Your task to perform on an android device: open app "Pinterest" (install if not already installed) Image 0: 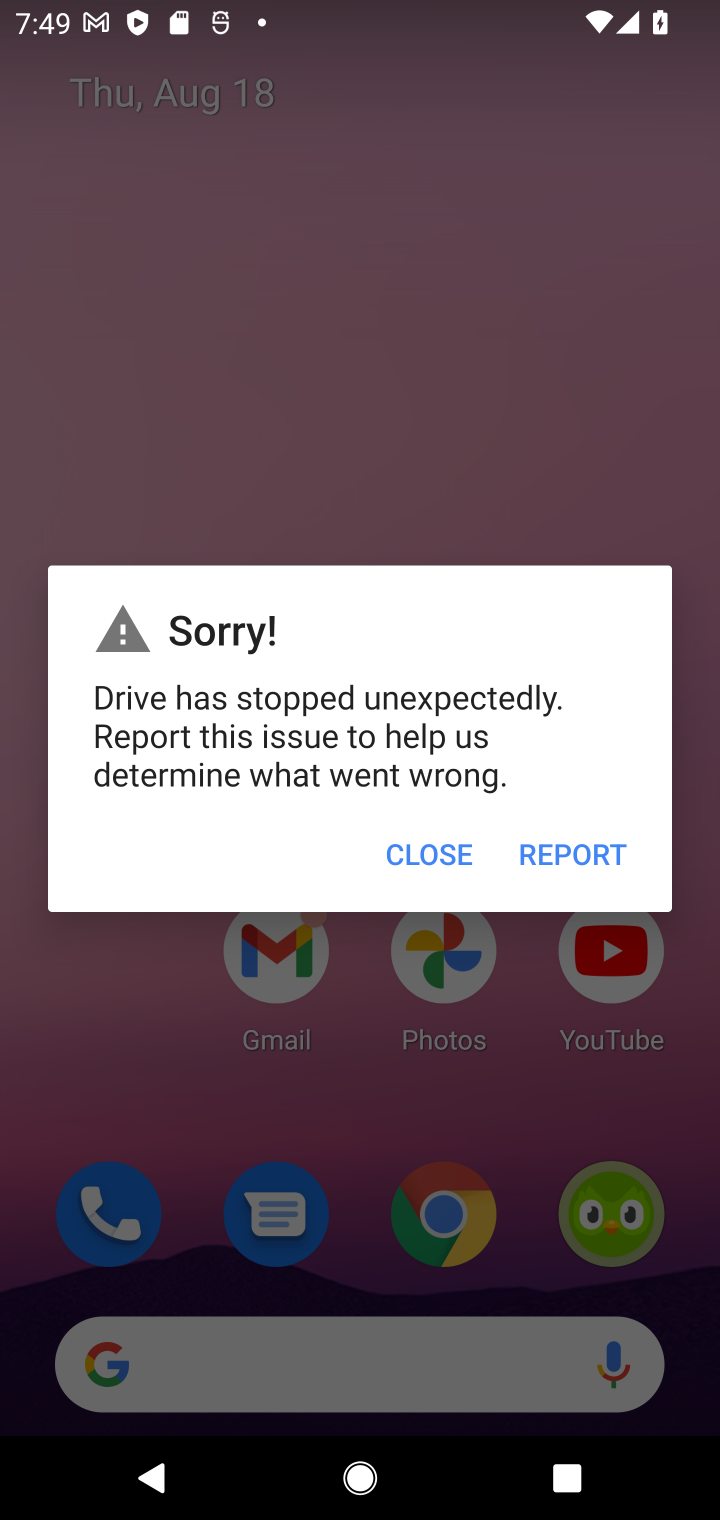
Step 0: click (426, 844)
Your task to perform on an android device: open app "Pinterest" (install if not already installed) Image 1: 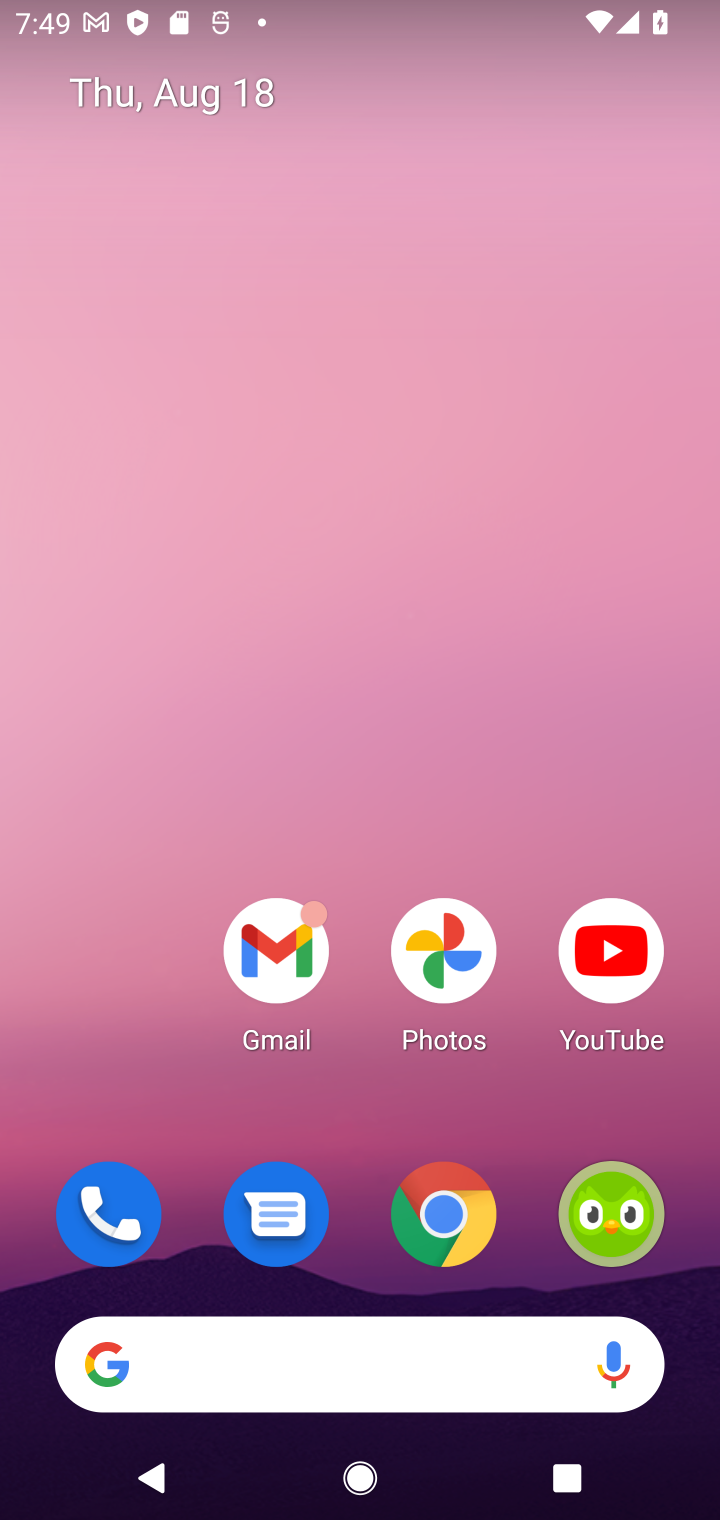
Step 1: drag from (141, 1037) to (358, 136)
Your task to perform on an android device: open app "Pinterest" (install if not already installed) Image 2: 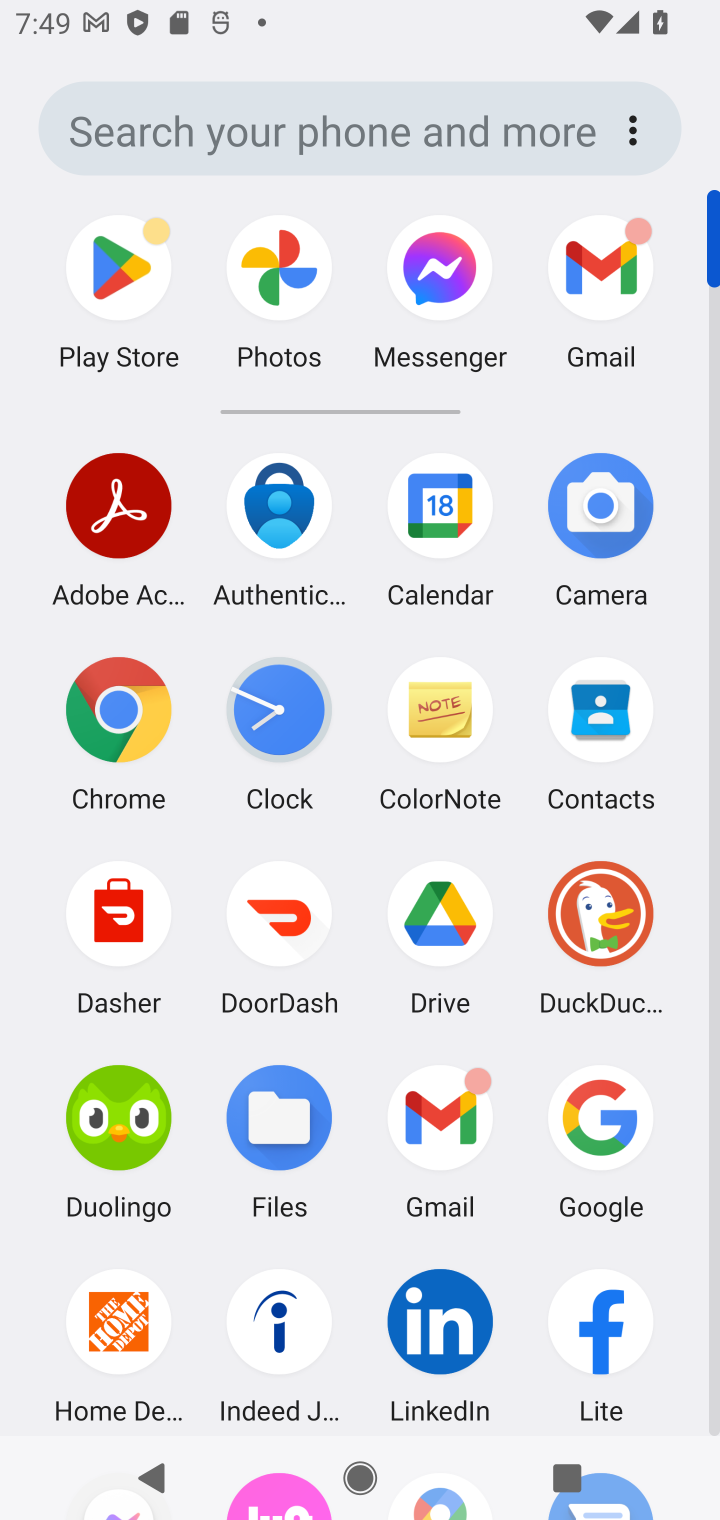
Step 2: click (122, 272)
Your task to perform on an android device: open app "Pinterest" (install if not already installed) Image 3: 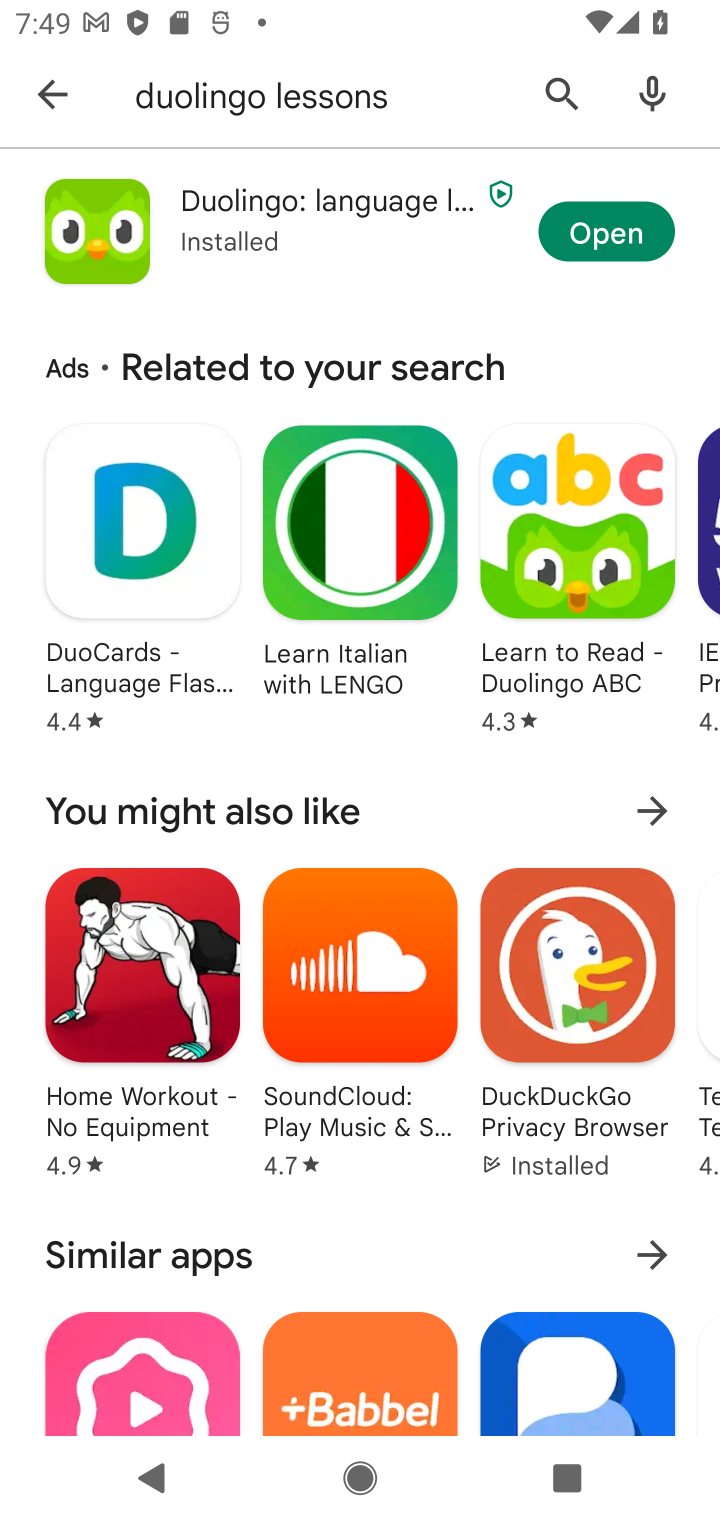
Step 3: click (548, 89)
Your task to perform on an android device: open app "Pinterest" (install if not already installed) Image 4: 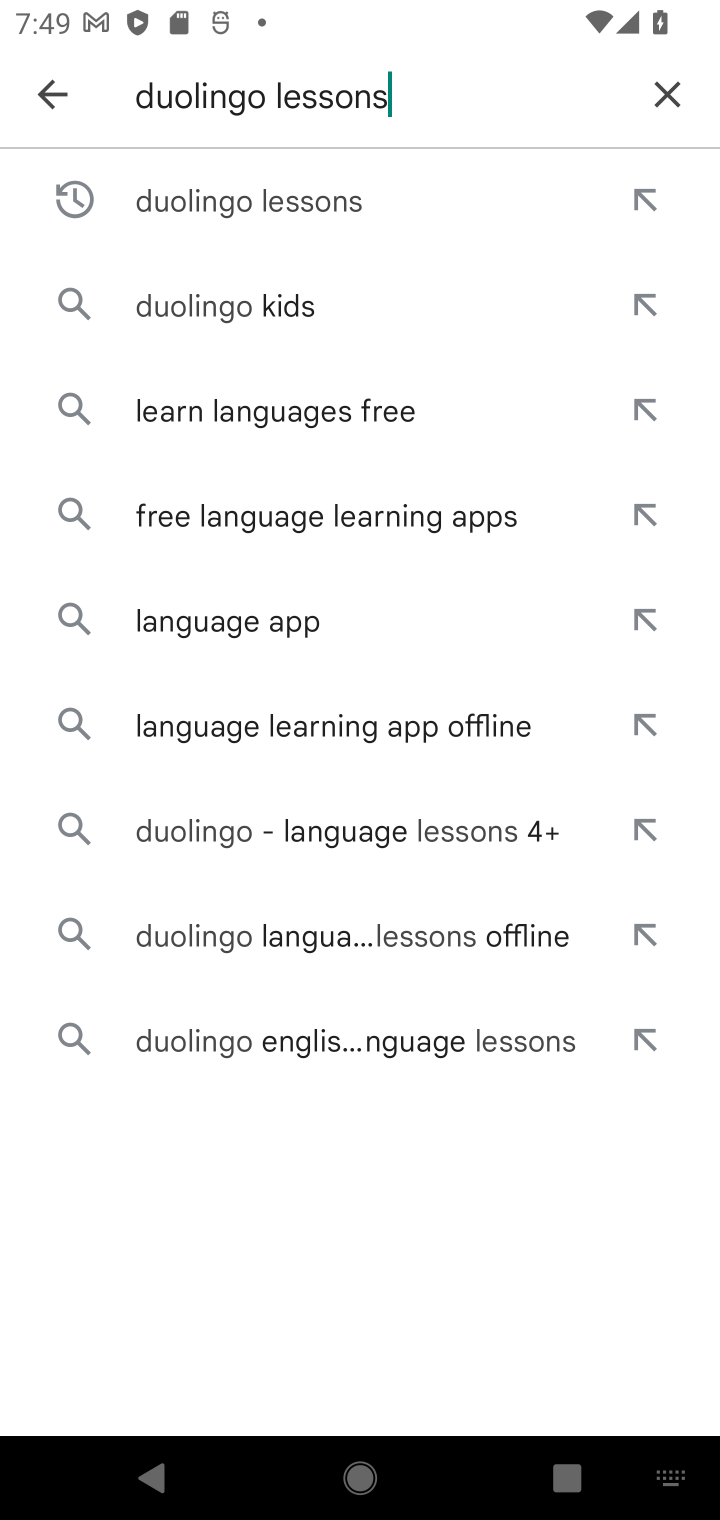
Step 4: click (684, 94)
Your task to perform on an android device: open app "Pinterest" (install if not already installed) Image 5: 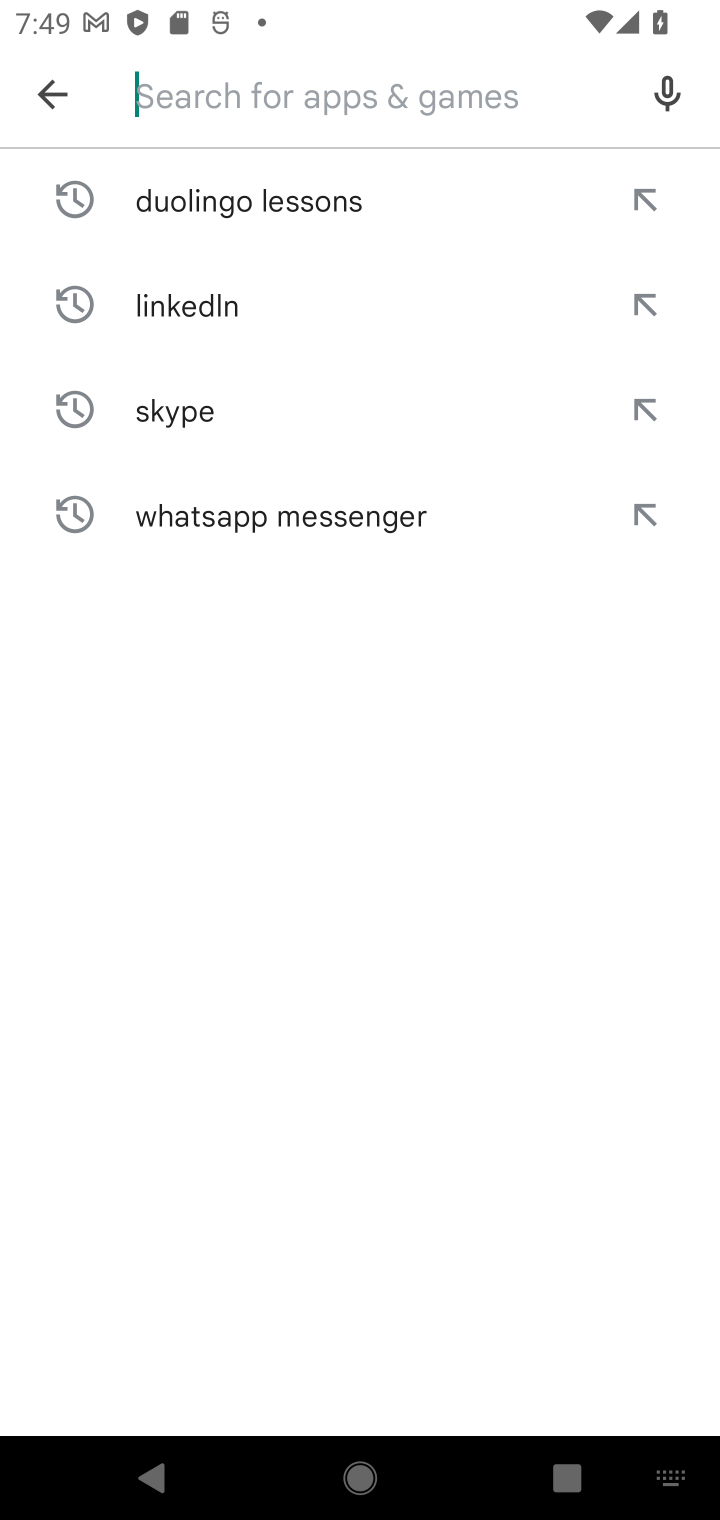
Step 5: type "pinterst"
Your task to perform on an android device: open app "Pinterest" (install if not already installed) Image 6: 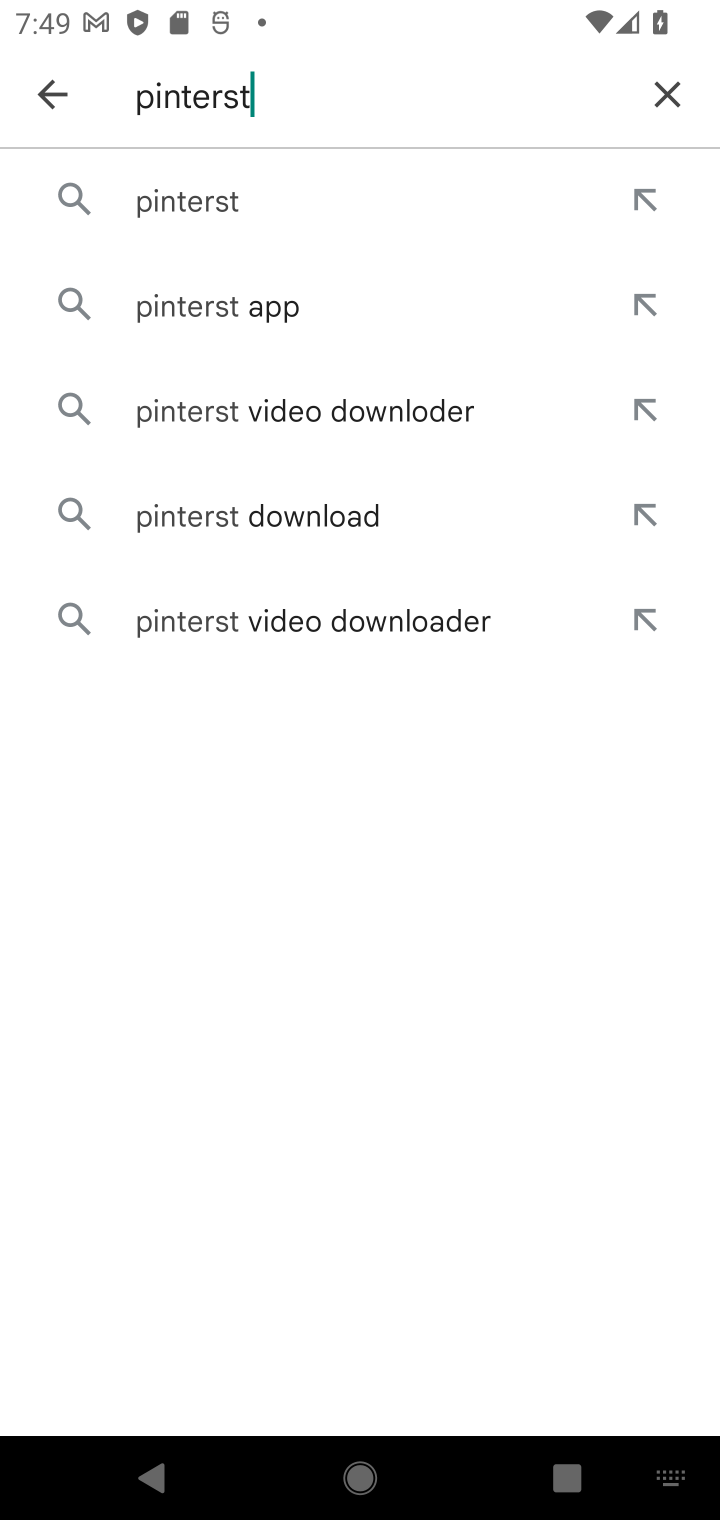
Step 6: click (166, 194)
Your task to perform on an android device: open app "Pinterest" (install if not already installed) Image 7: 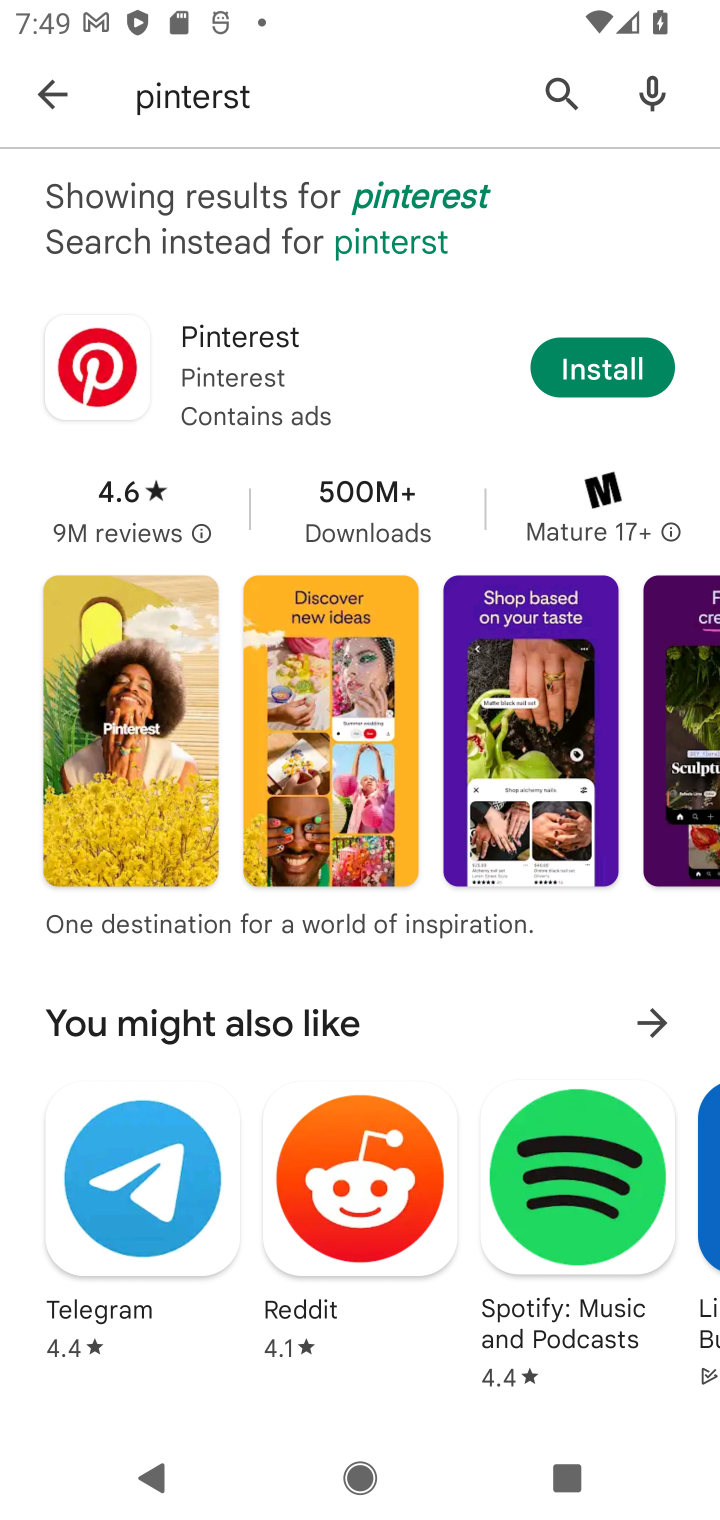
Step 7: click (619, 375)
Your task to perform on an android device: open app "Pinterest" (install if not already installed) Image 8: 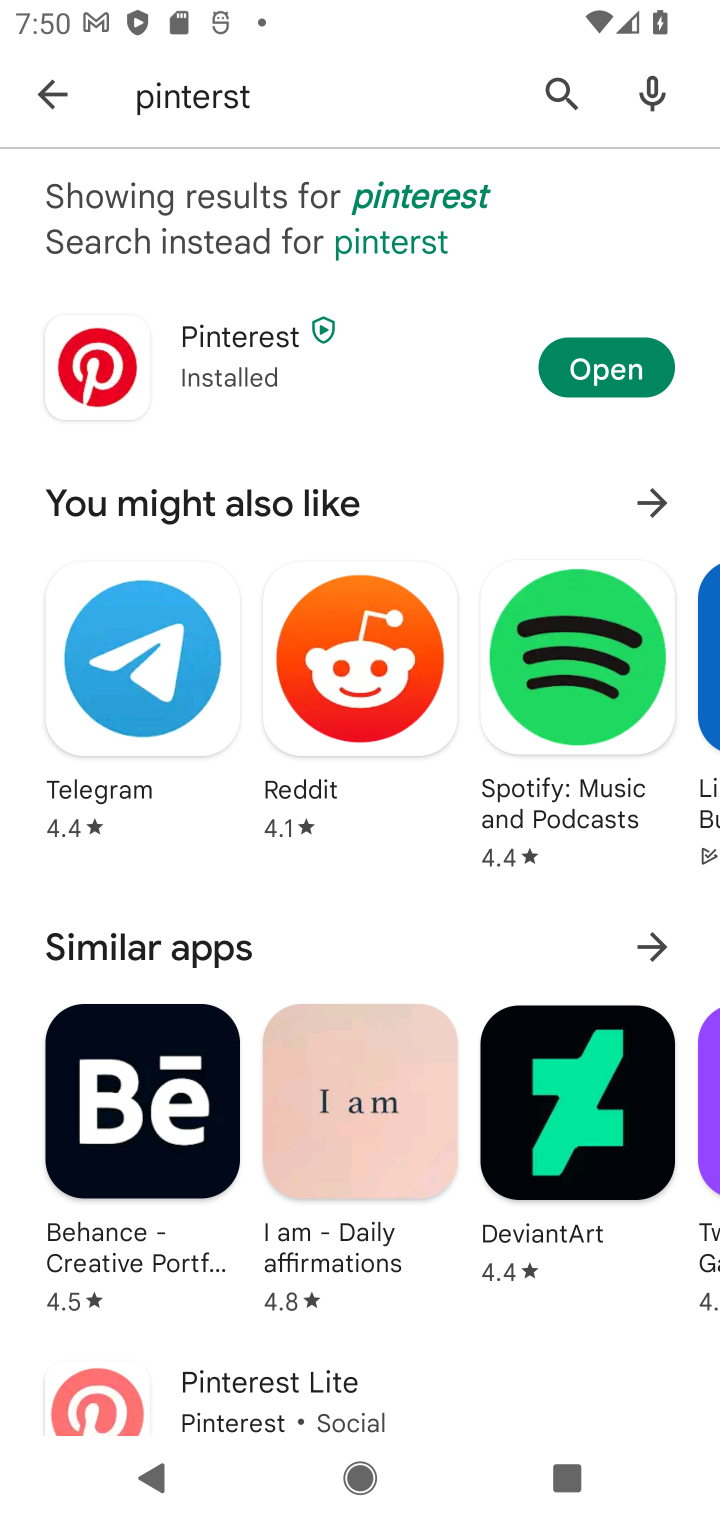
Step 8: click (568, 375)
Your task to perform on an android device: open app "Pinterest" (install if not already installed) Image 9: 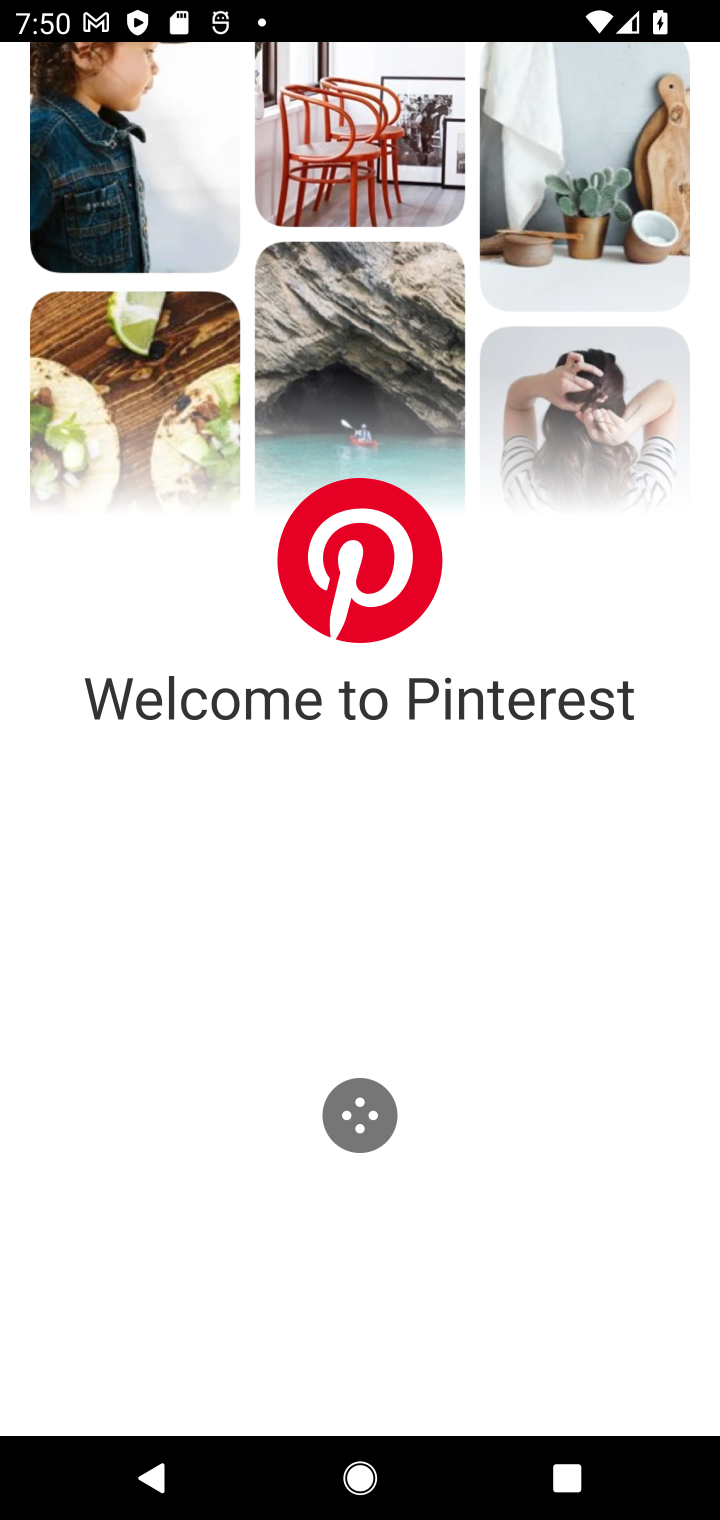
Step 9: task complete